Your task to perform on an android device: remove spam from my inbox in the gmail app Image 0: 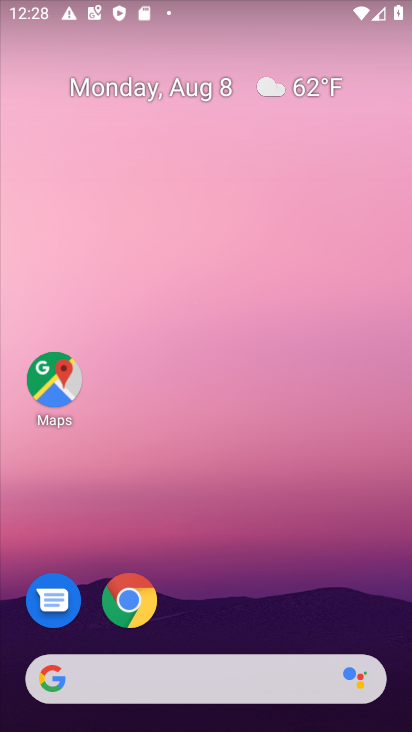
Step 0: drag from (227, 619) to (218, 212)
Your task to perform on an android device: remove spam from my inbox in the gmail app Image 1: 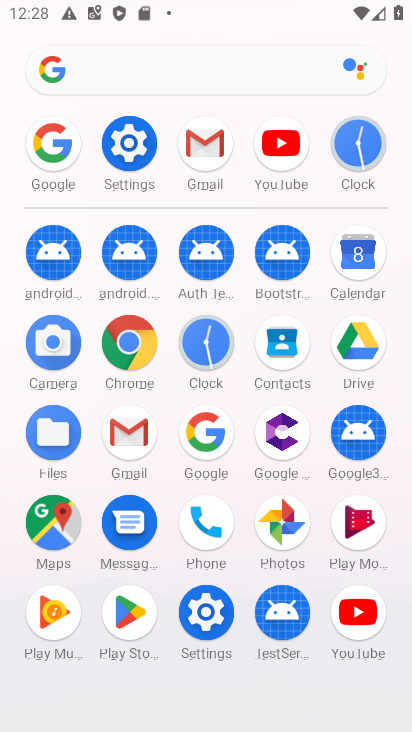
Step 1: click (202, 162)
Your task to perform on an android device: remove spam from my inbox in the gmail app Image 2: 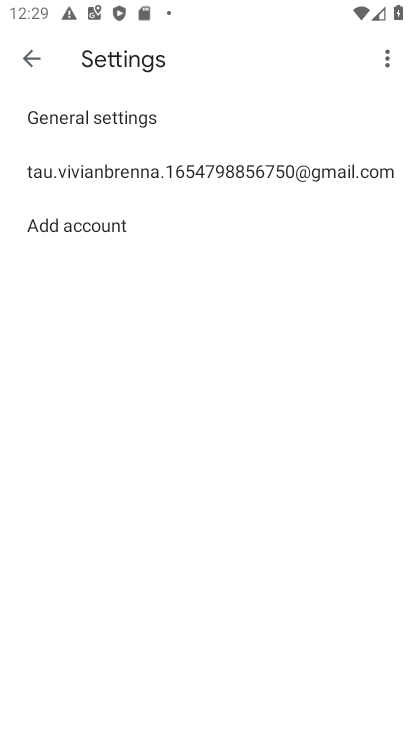
Step 2: click (32, 62)
Your task to perform on an android device: remove spam from my inbox in the gmail app Image 3: 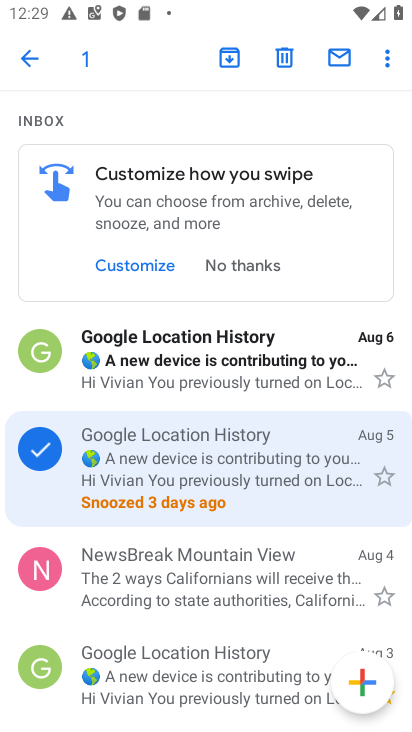
Step 3: click (17, 60)
Your task to perform on an android device: remove spam from my inbox in the gmail app Image 4: 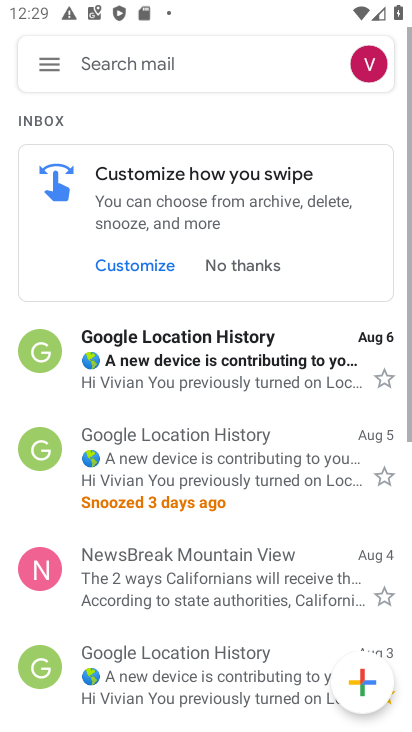
Step 4: click (28, 64)
Your task to perform on an android device: remove spam from my inbox in the gmail app Image 5: 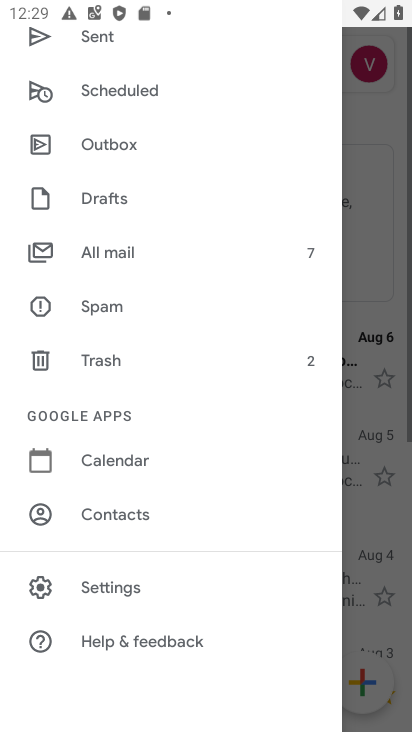
Step 5: click (119, 301)
Your task to perform on an android device: remove spam from my inbox in the gmail app Image 6: 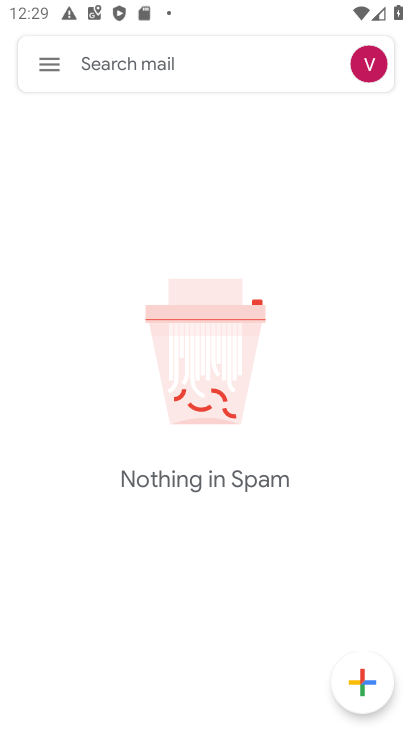
Step 6: task complete